Your task to perform on an android device: visit the assistant section in the google photos Image 0: 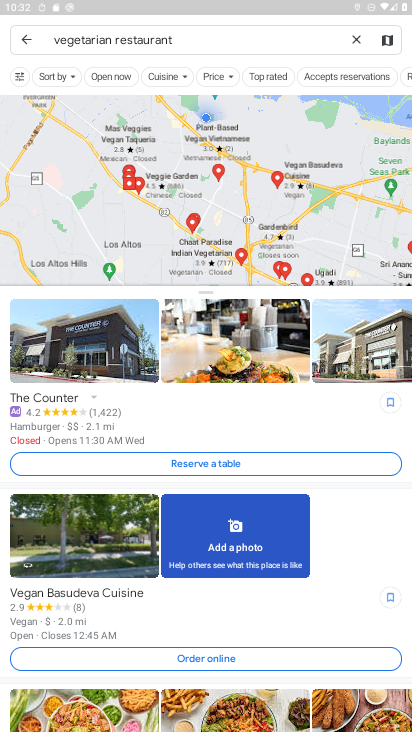
Step 0: click (23, 36)
Your task to perform on an android device: visit the assistant section in the google photos Image 1: 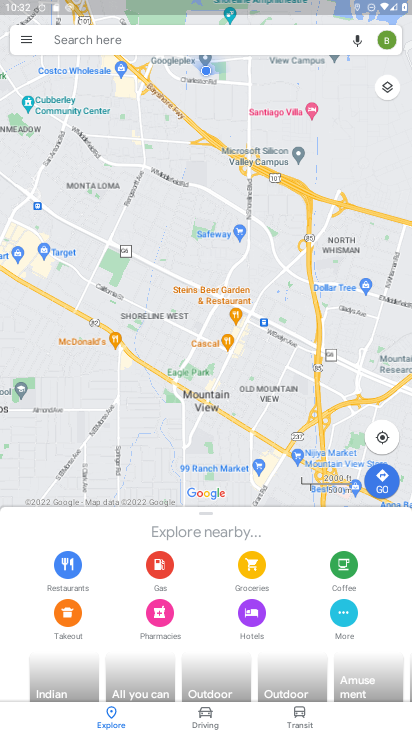
Step 1: click (26, 38)
Your task to perform on an android device: visit the assistant section in the google photos Image 2: 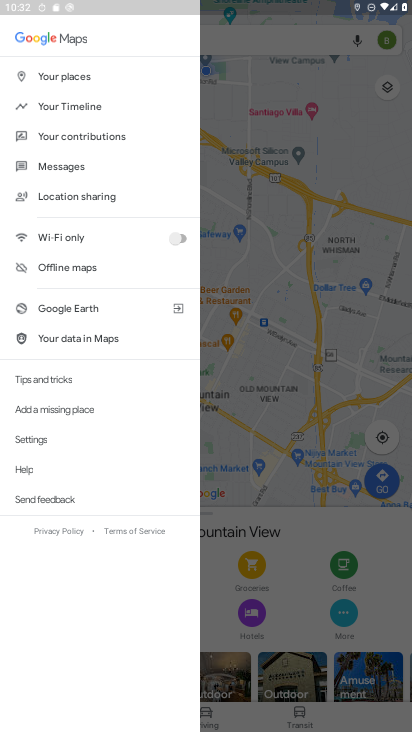
Step 2: press home button
Your task to perform on an android device: visit the assistant section in the google photos Image 3: 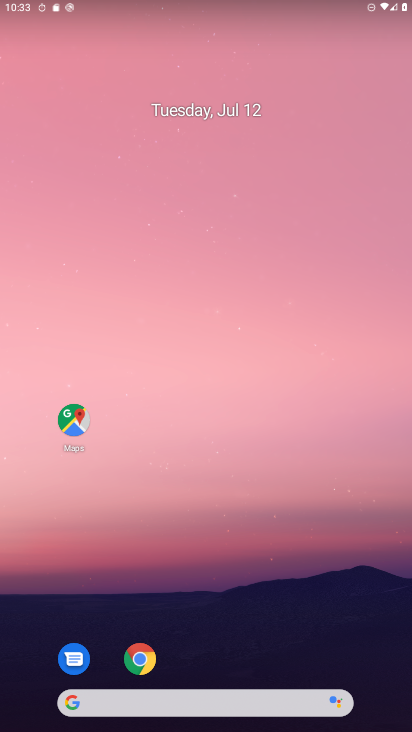
Step 3: drag from (215, 712) to (201, 202)
Your task to perform on an android device: visit the assistant section in the google photos Image 4: 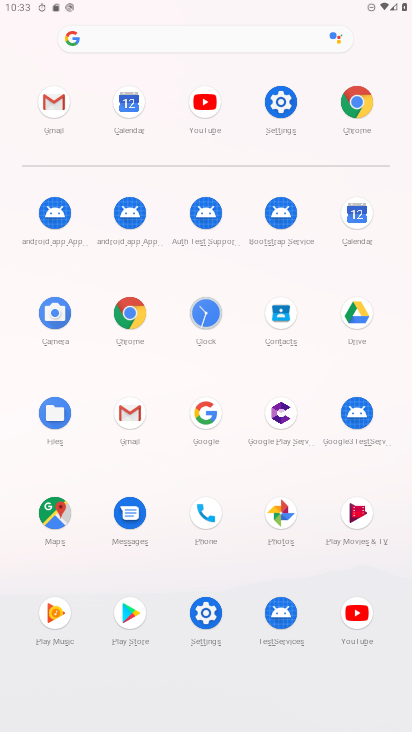
Step 4: click (282, 517)
Your task to perform on an android device: visit the assistant section in the google photos Image 5: 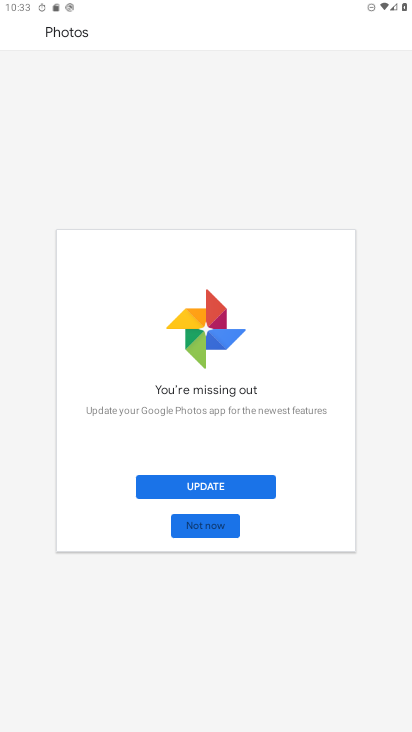
Step 5: task complete